Your task to perform on an android device: see sites visited before in the chrome app Image 0: 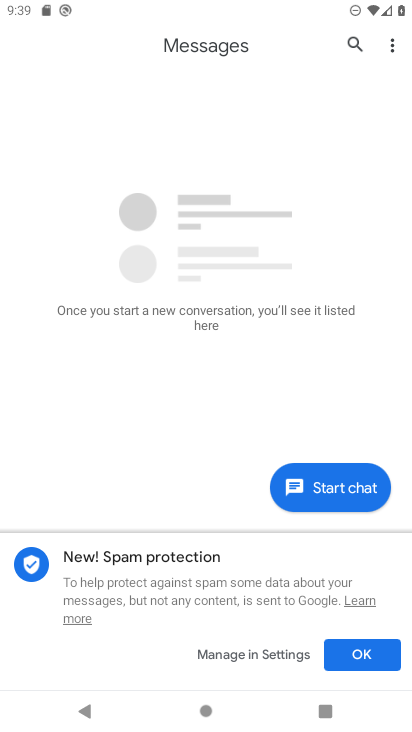
Step 0: press home button
Your task to perform on an android device: see sites visited before in the chrome app Image 1: 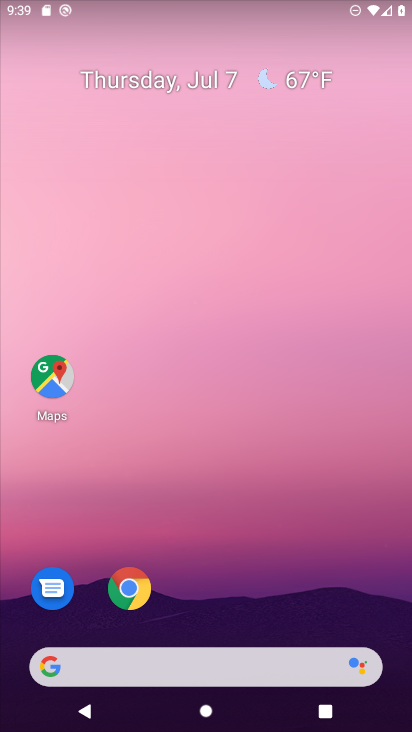
Step 1: click (129, 587)
Your task to perform on an android device: see sites visited before in the chrome app Image 2: 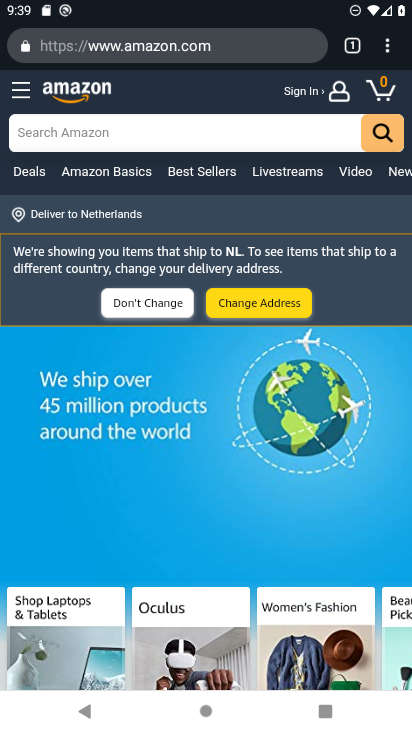
Step 2: click (389, 53)
Your task to perform on an android device: see sites visited before in the chrome app Image 3: 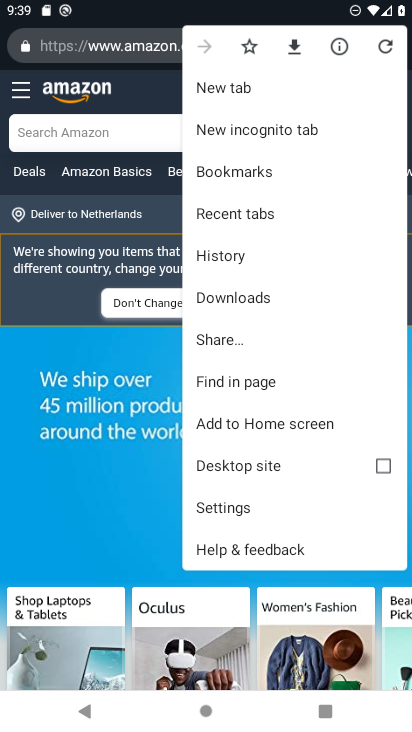
Step 3: click (247, 256)
Your task to perform on an android device: see sites visited before in the chrome app Image 4: 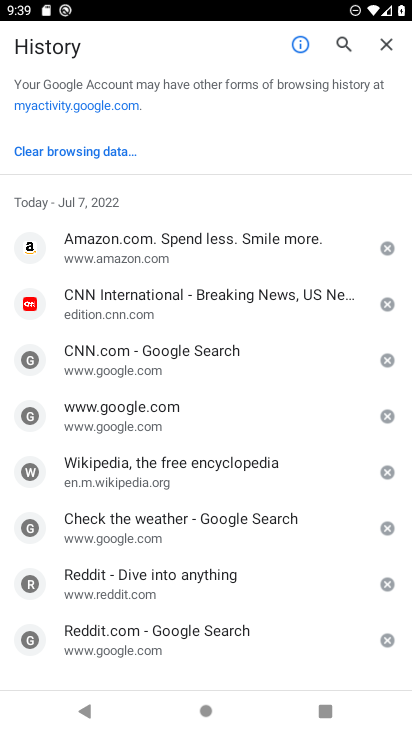
Step 4: task complete